Your task to perform on an android device: Go to Google maps Image 0: 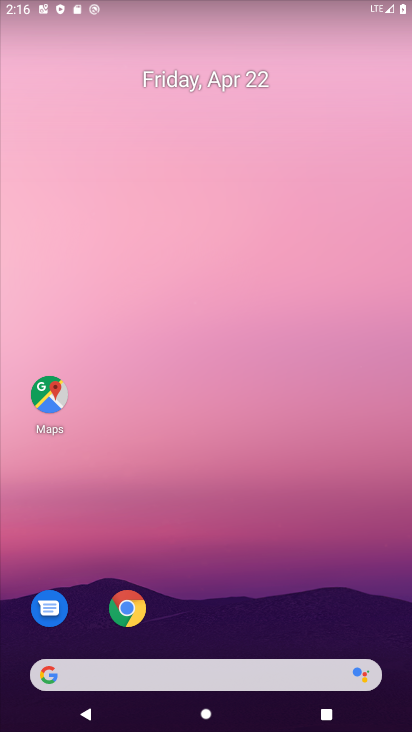
Step 0: drag from (290, 694) to (284, 236)
Your task to perform on an android device: Go to Google maps Image 1: 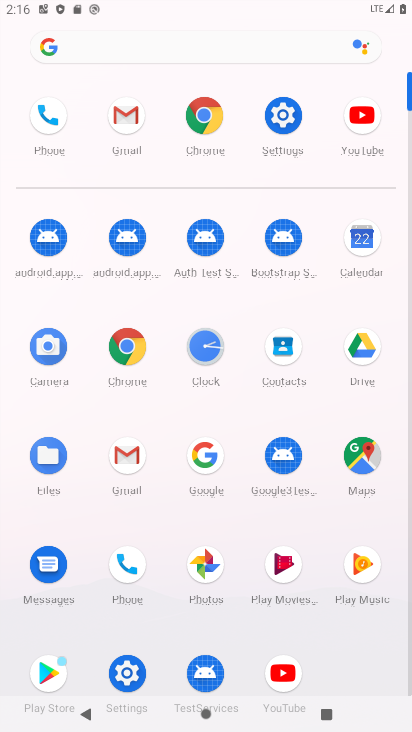
Step 1: click (355, 439)
Your task to perform on an android device: Go to Google maps Image 2: 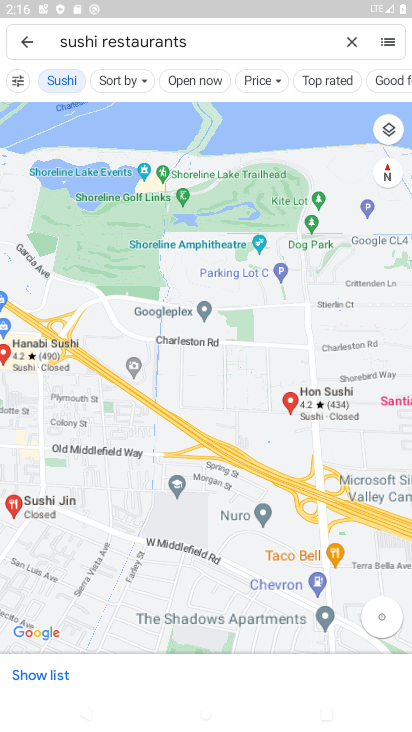
Step 2: click (19, 45)
Your task to perform on an android device: Go to Google maps Image 3: 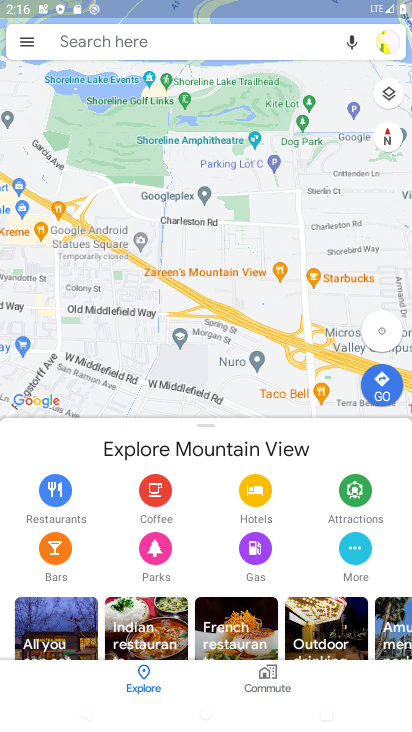
Step 3: click (260, 292)
Your task to perform on an android device: Go to Google maps Image 4: 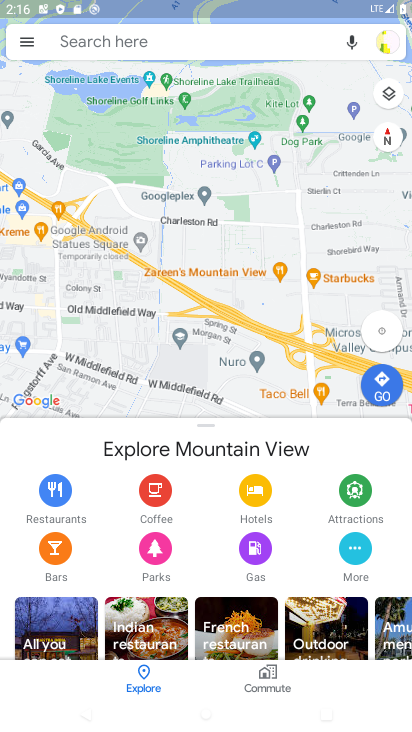
Step 4: task complete